Your task to perform on an android device: Open network settings Image 0: 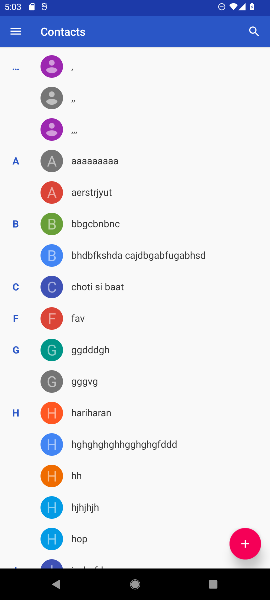
Step 0: press back button
Your task to perform on an android device: Open network settings Image 1: 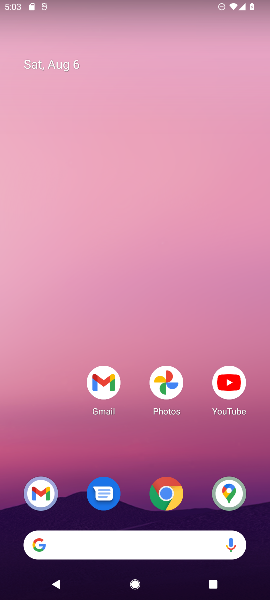
Step 1: click (151, 387)
Your task to perform on an android device: Open network settings Image 2: 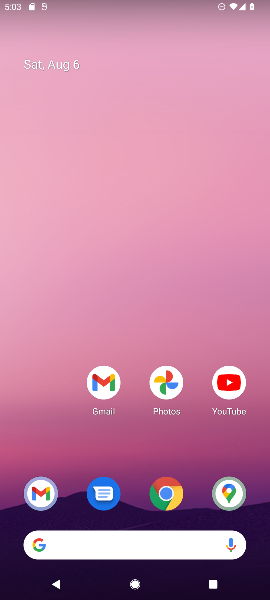
Step 2: drag from (164, 487) to (160, 268)
Your task to perform on an android device: Open network settings Image 3: 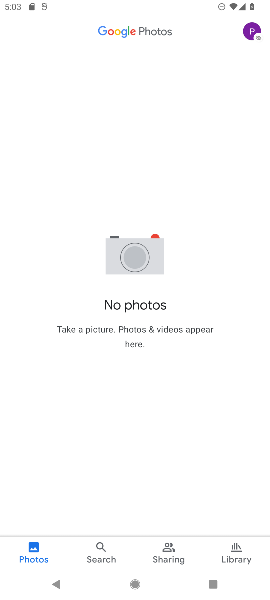
Step 3: press back button
Your task to perform on an android device: Open network settings Image 4: 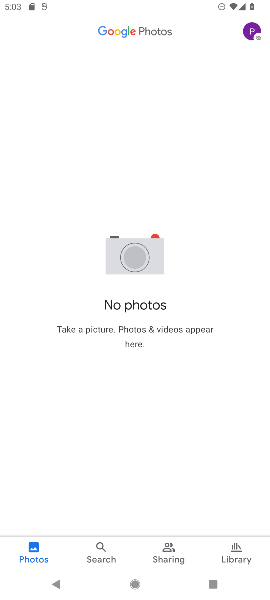
Step 4: press back button
Your task to perform on an android device: Open network settings Image 5: 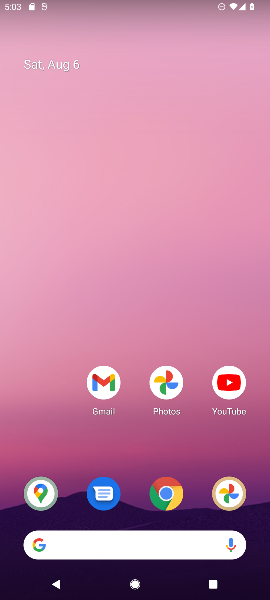
Step 5: drag from (159, 548) to (136, 363)
Your task to perform on an android device: Open network settings Image 6: 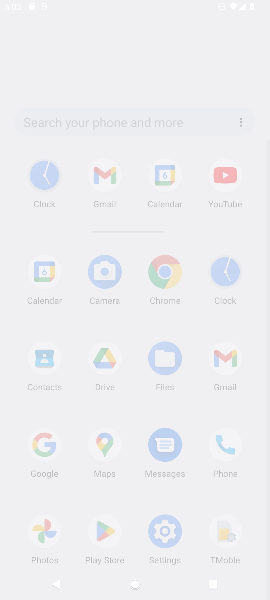
Step 6: drag from (146, 521) to (69, 248)
Your task to perform on an android device: Open network settings Image 7: 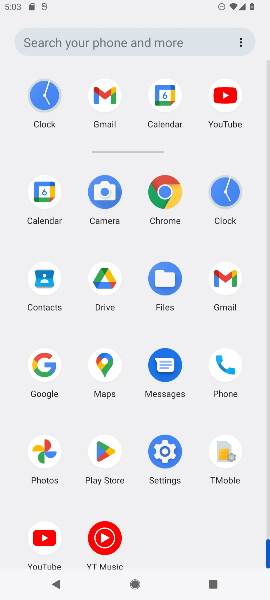
Step 7: drag from (160, 483) to (113, 358)
Your task to perform on an android device: Open network settings Image 8: 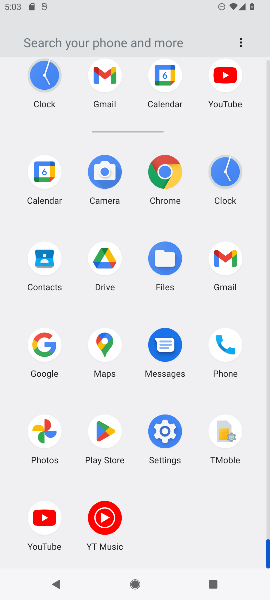
Step 8: click (160, 429)
Your task to perform on an android device: Open network settings Image 9: 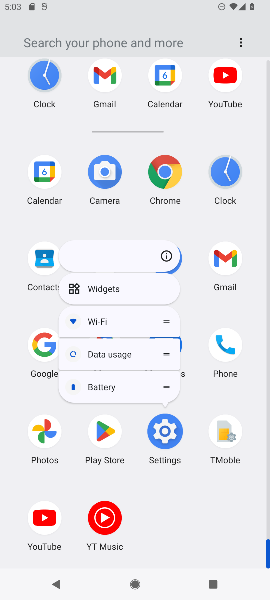
Step 9: click (160, 429)
Your task to perform on an android device: Open network settings Image 10: 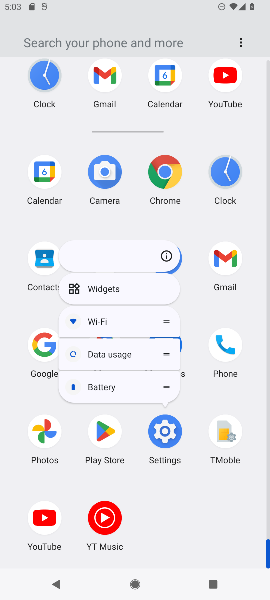
Step 10: click (160, 429)
Your task to perform on an android device: Open network settings Image 11: 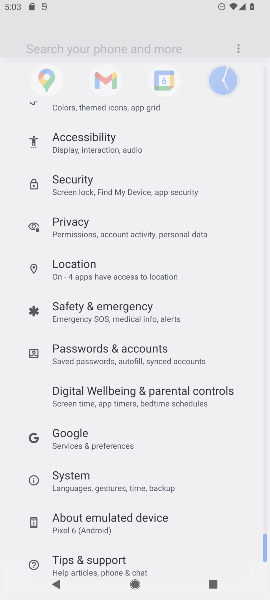
Step 11: click (161, 430)
Your task to perform on an android device: Open network settings Image 12: 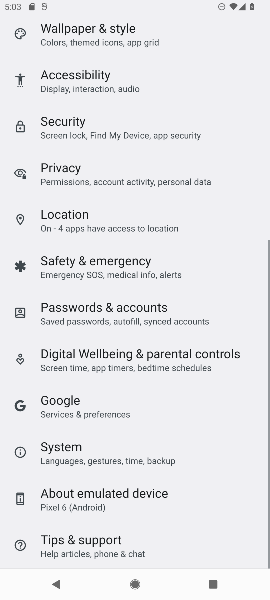
Step 12: click (161, 430)
Your task to perform on an android device: Open network settings Image 13: 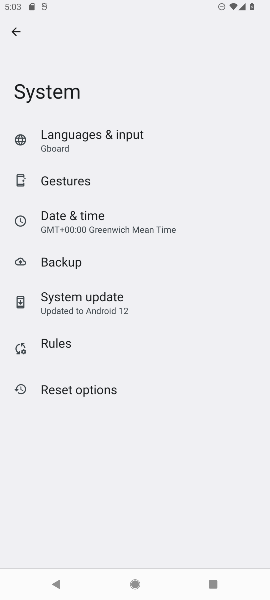
Step 13: drag from (60, 142) to (96, 433)
Your task to perform on an android device: Open network settings Image 14: 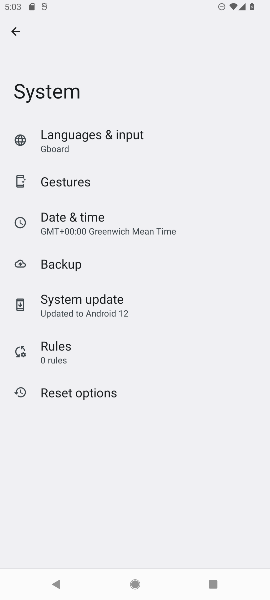
Step 14: drag from (69, 155) to (125, 560)
Your task to perform on an android device: Open network settings Image 15: 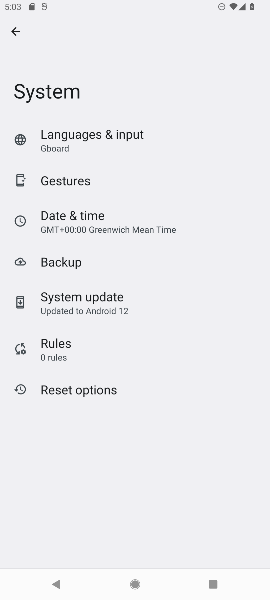
Step 15: click (18, 36)
Your task to perform on an android device: Open network settings Image 16: 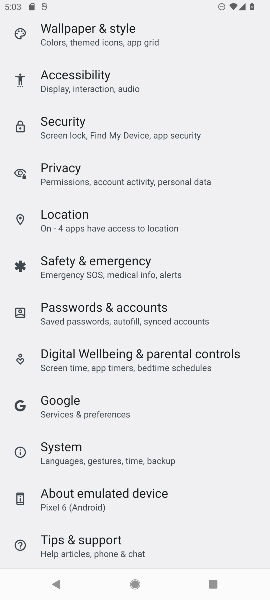
Step 16: drag from (84, 82) to (109, 375)
Your task to perform on an android device: Open network settings Image 17: 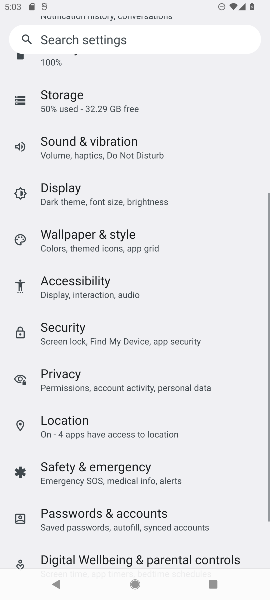
Step 17: drag from (99, 192) to (151, 481)
Your task to perform on an android device: Open network settings Image 18: 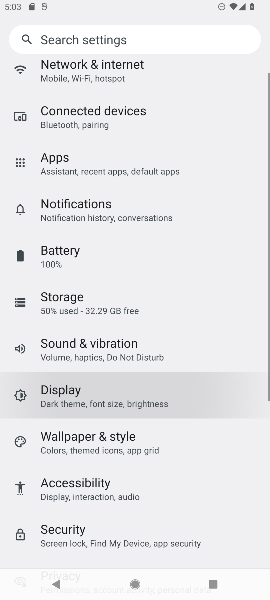
Step 18: drag from (92, 246) to (139, 419)
Your task to perform on an android device: Open network settings Image 19: 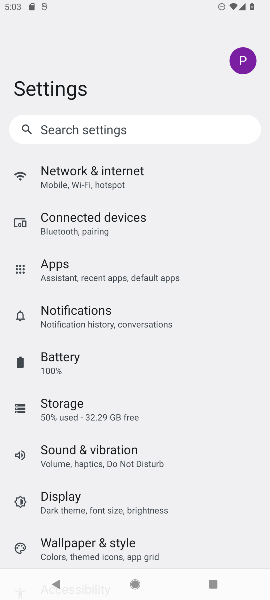
Step 19: click (65, 183)
Your task to perform on an android device: Open network settings Image 20: 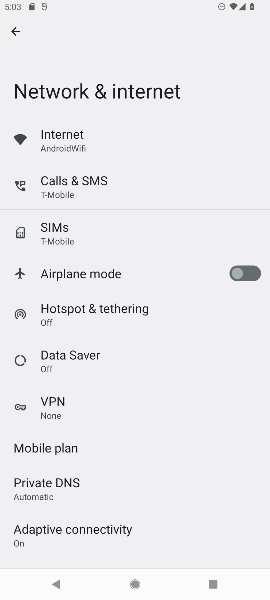
Step 20: click (60, 145)
Your task to perform on an android device: Open network settings Image 21: 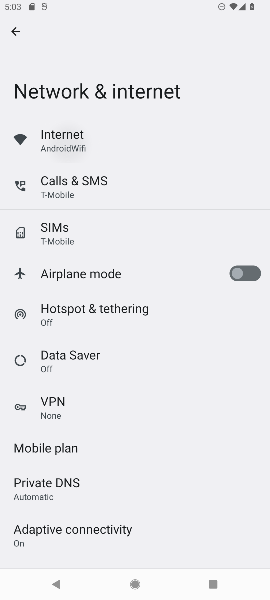
Step 21: click (59, 145)
Your task to perform on an android device: Open network settings Image 22: 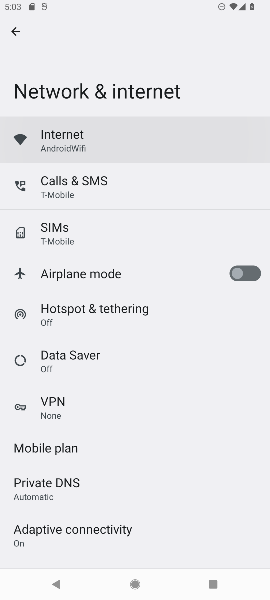
Step 22: click (58, 145)
Your task to perform on an android device: Open network settings Image 23: 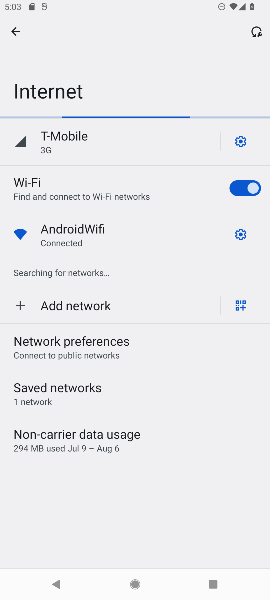
Step 23: task complete